Your task to perform on an android device: Go to ESPN.com Image 0: 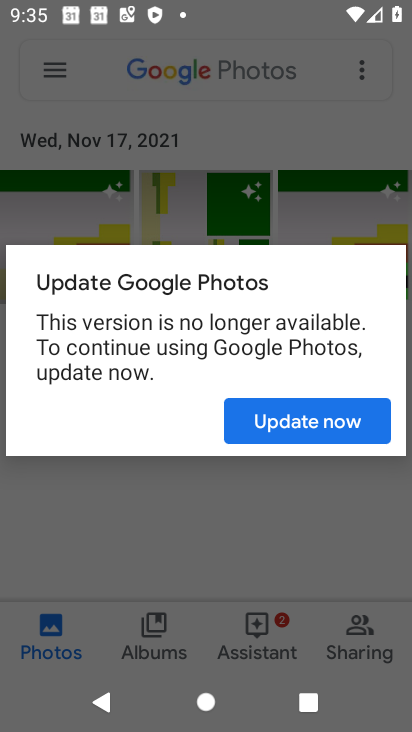
Step 0: press home button
Your task to perform on an android device: Go to ESPN.com Image 1: 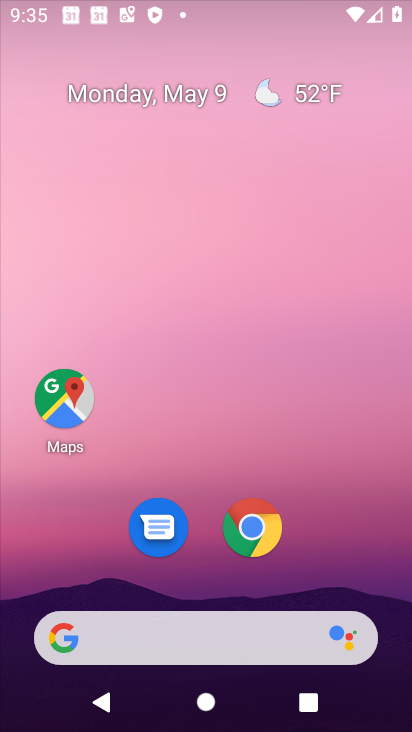
Step 1: drag from (193, 569) to (210, 26)
Your task to perform on an android device: Go to ESPN.com Image 2: 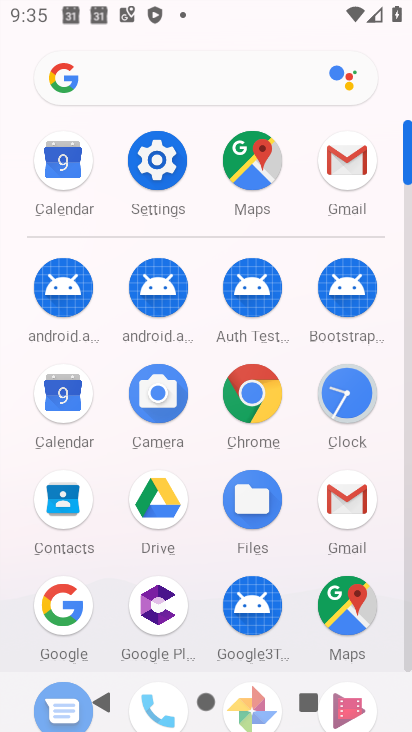
Step 2: click (67, 607)
Your task to perform on an android device: Go to ESPN.com Image 3: 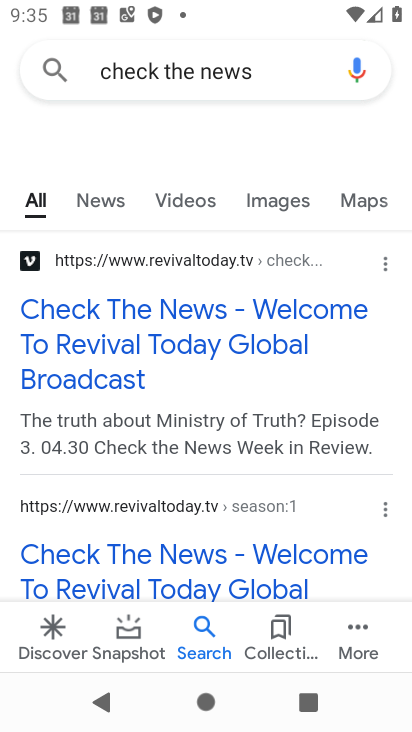
Step 3: click (285, 62)
Your task to perform on an android device: Go to ESPN.com Image 4: 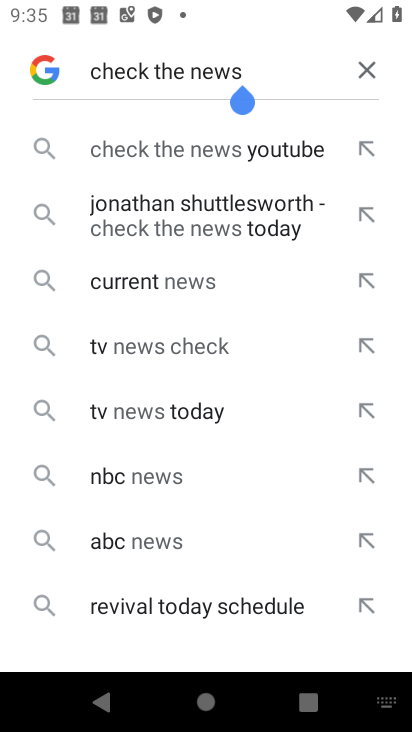
Step 4: click (365, 67)
Your task to perform on an android device: Go to ESPN.com Image 5: 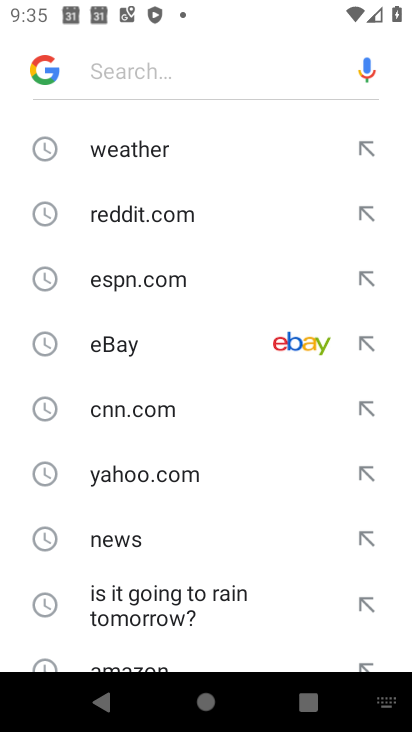
Step 5: click (120, 281)
Your task to perform on an android device: Go to ESPN.com Image 6: 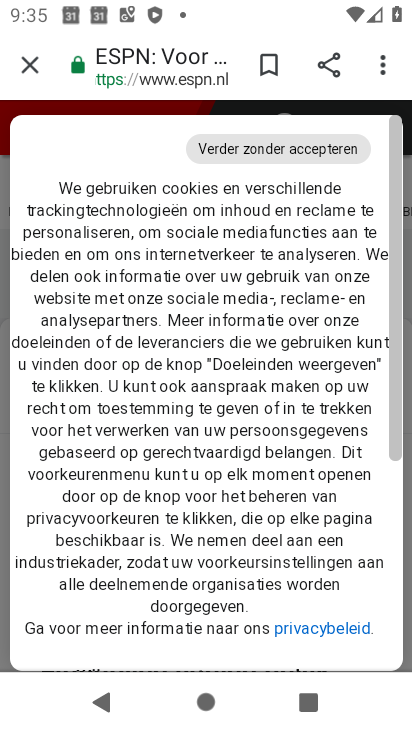
Step 6: task complete